Your task to perform on an android device: Clear the shopping cart on newegg.com. Image 0: 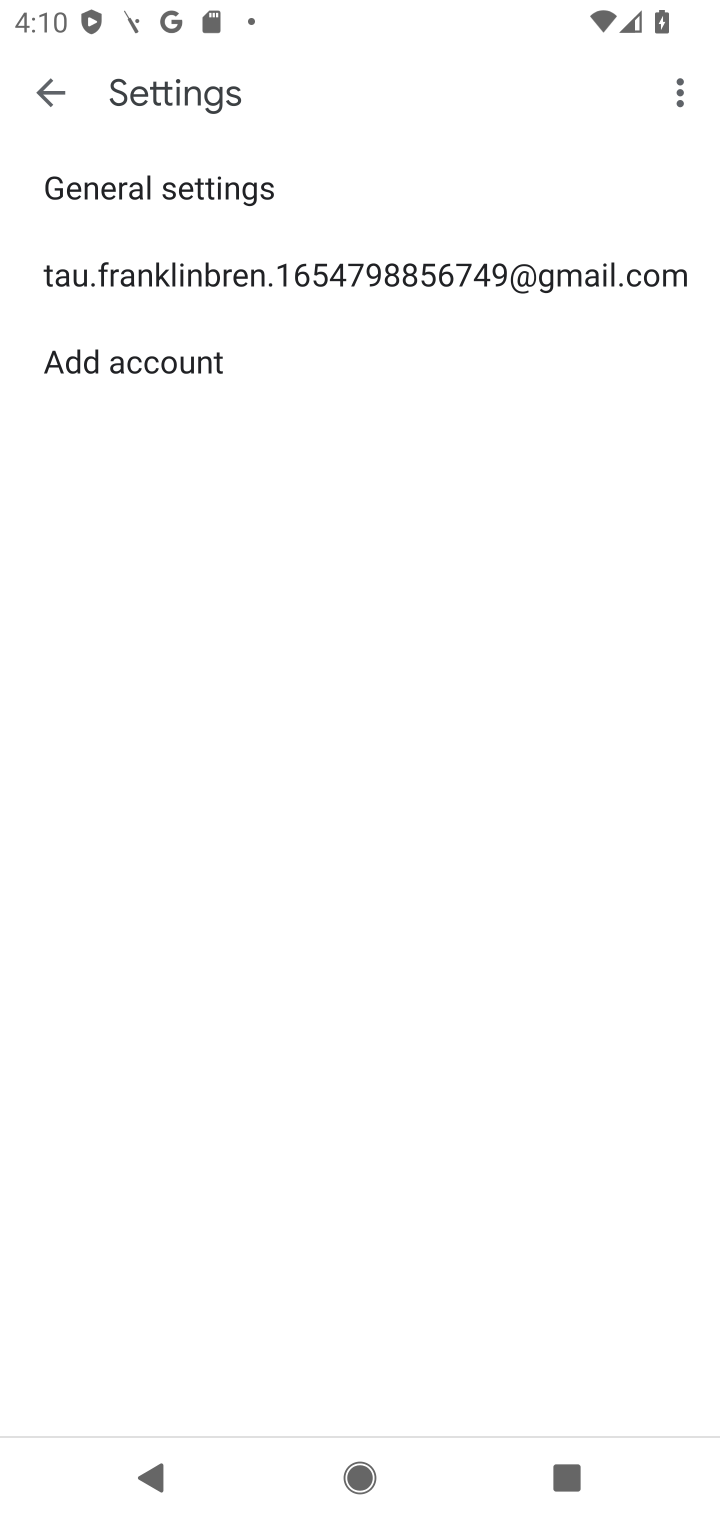
Step 0: press home button
Your task to perform on an android device: Clear the shopping cart on newegg.com. Image 1: 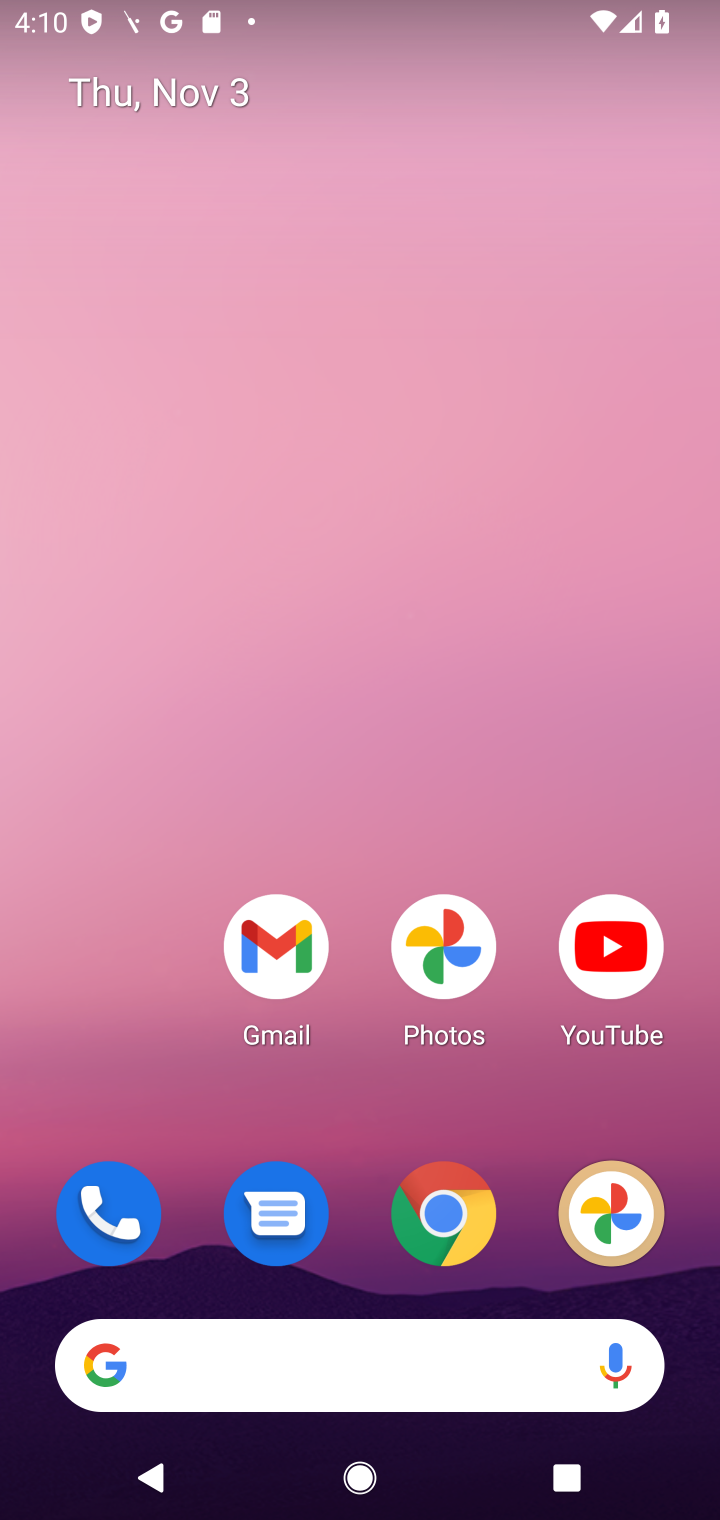
Step 1: click (453, 1212)
Your task to perform on an android device: Clear the shopping cart on newegg.com. Image 2: 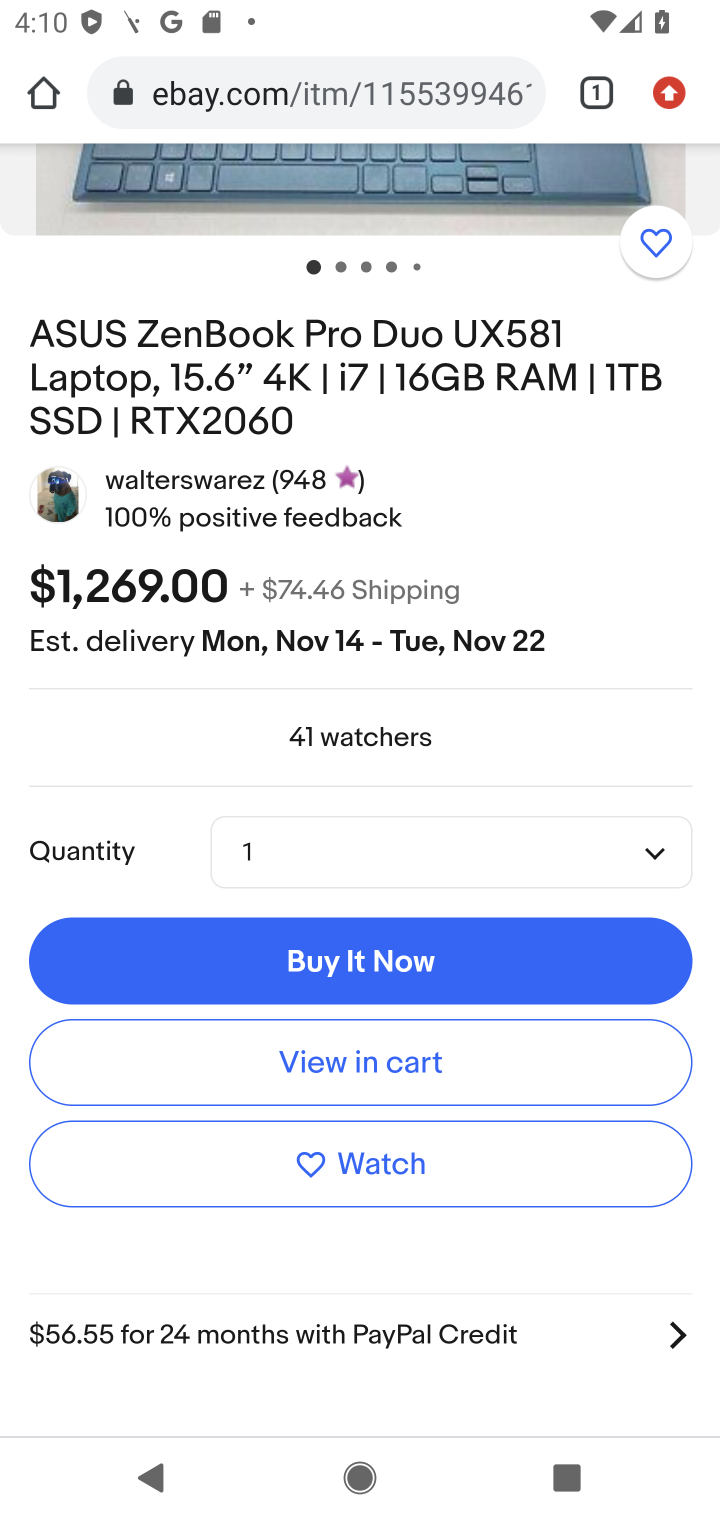
Step 2: click (315, 91)
Your task to perform on an android device: Clear the shopping cart on newegg.com. Image 3: 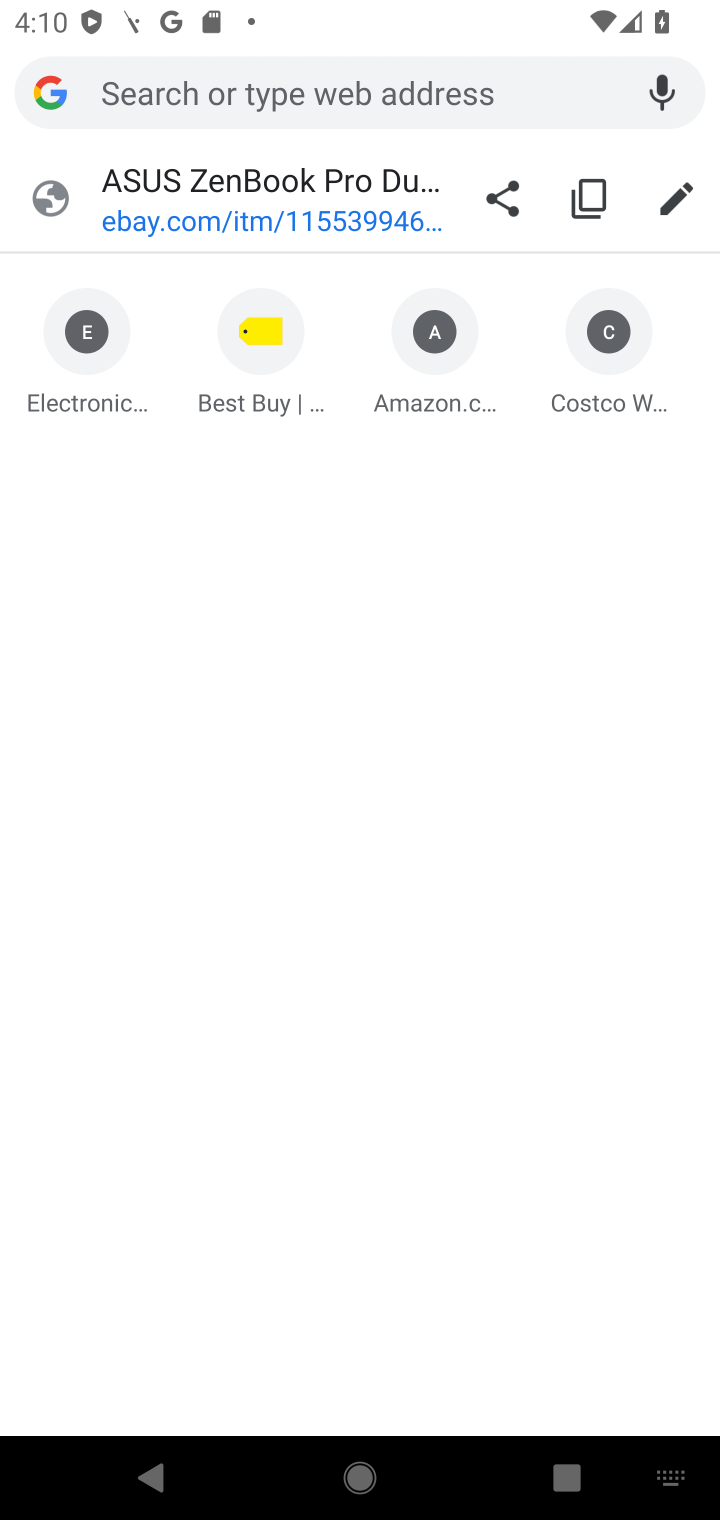
Step 3: type "newegg.com"
Your task to perform on an android device: Clear the shopping cart on newegg.com. Image 4: 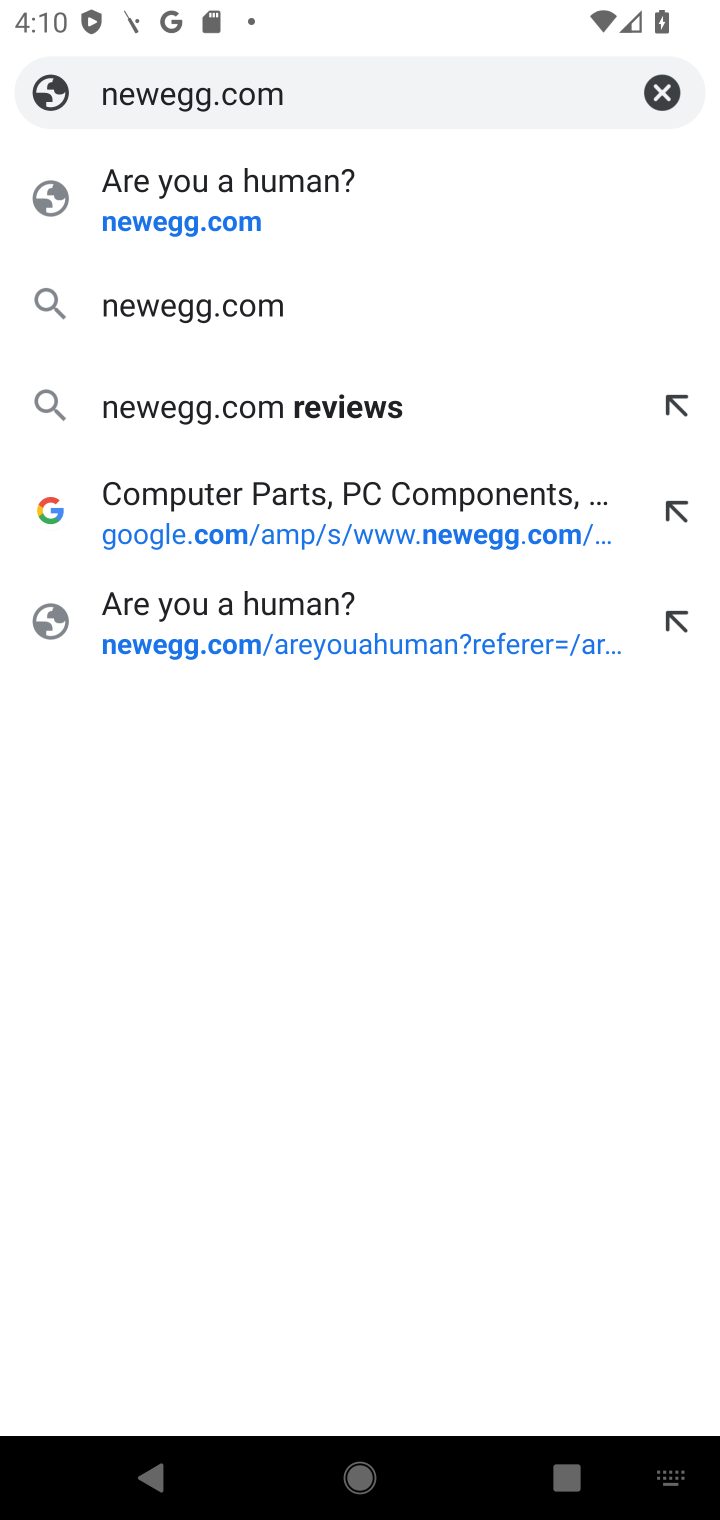
Step 4: click (227, 326)
Your task to perform on an android device: Clear the shopping cart on newegg.com. Image 5: 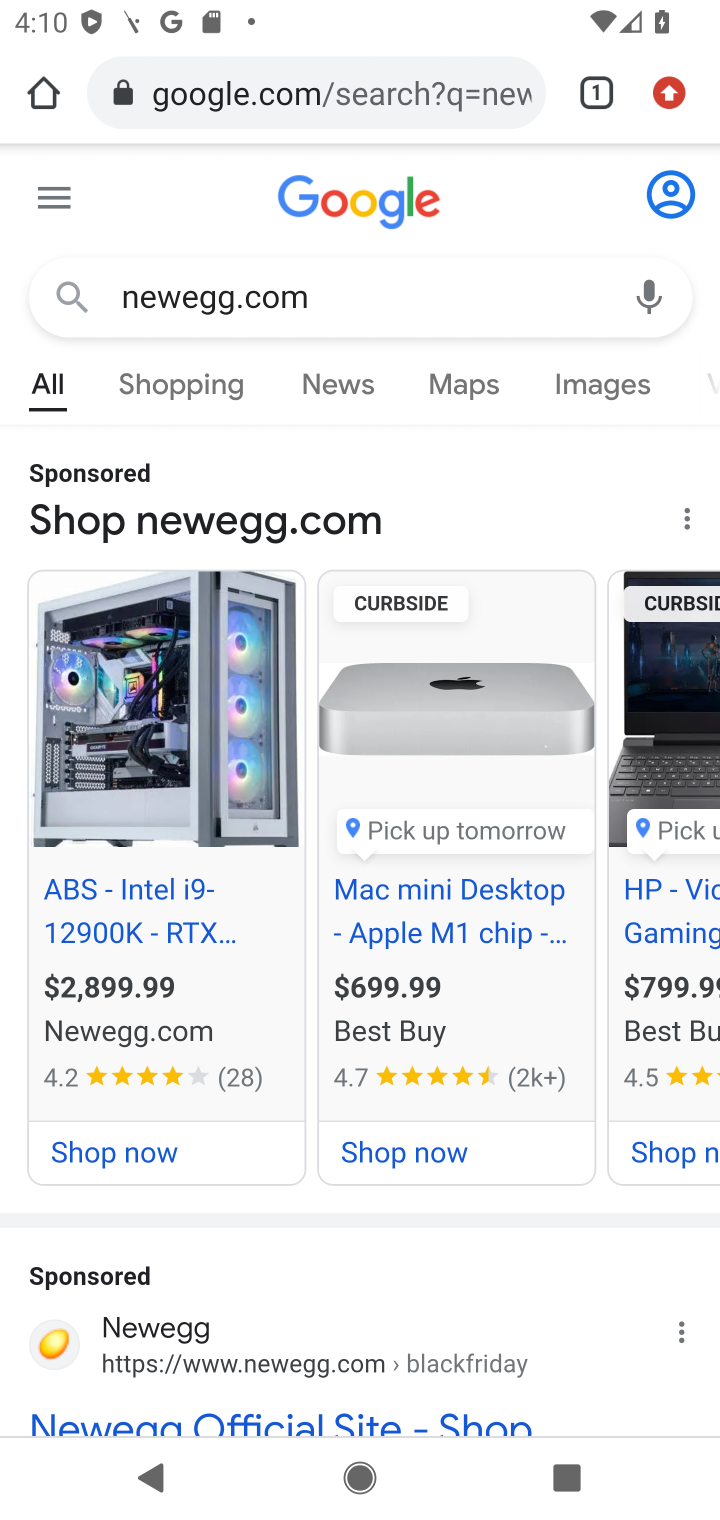
Step 5: drag from (329, 643) to (307, 245)
Your task to perform on an android device: Clear the shopping cart on newegg.com. Image 6: 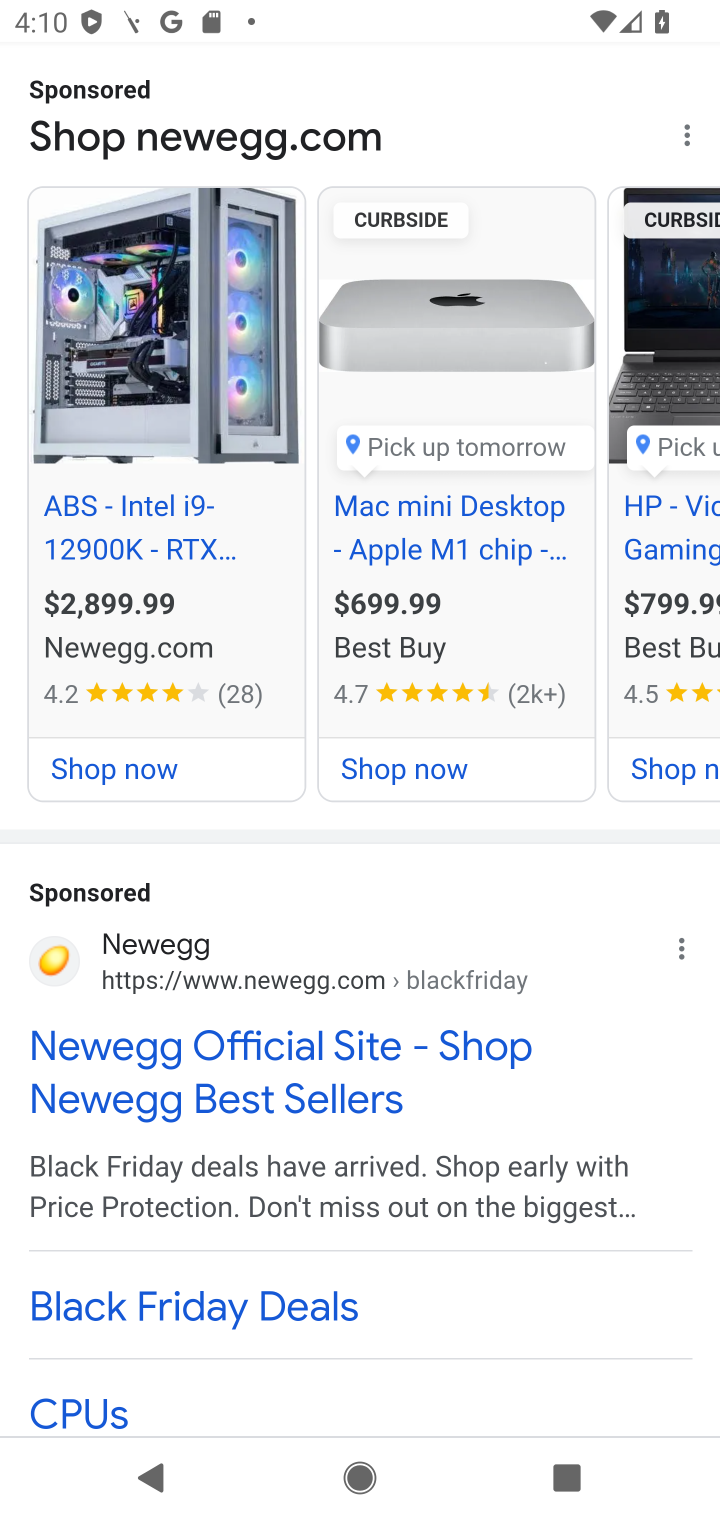
Step 6: drag from (399, 1035) to (301, 155)
Your task to perform on an android device: Clear the shopping cart on newegg.com. Image 7: 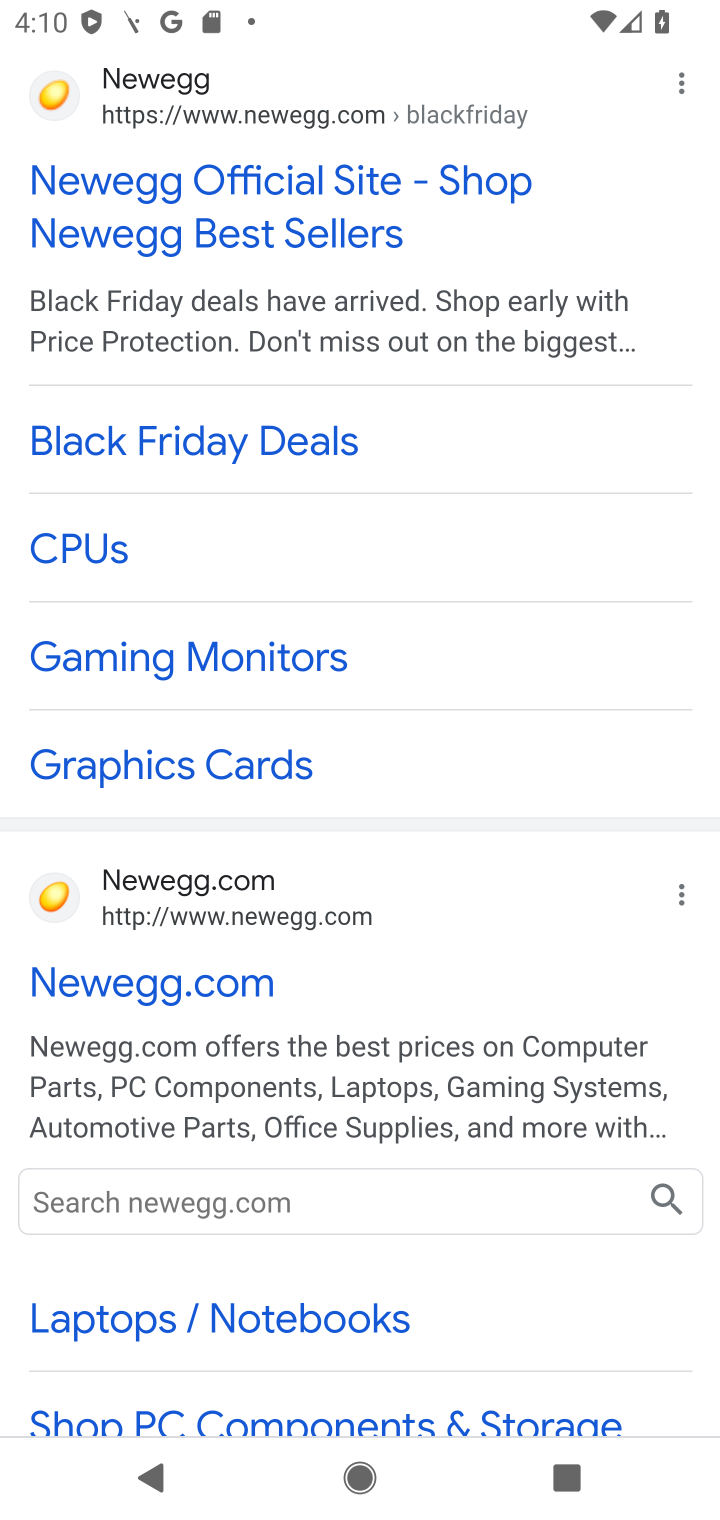
Step 7: drag from (317, 1136) to (334, 958)
Your task to perform on an android device: Clear the shopping cart on newegg.com. Image 8: 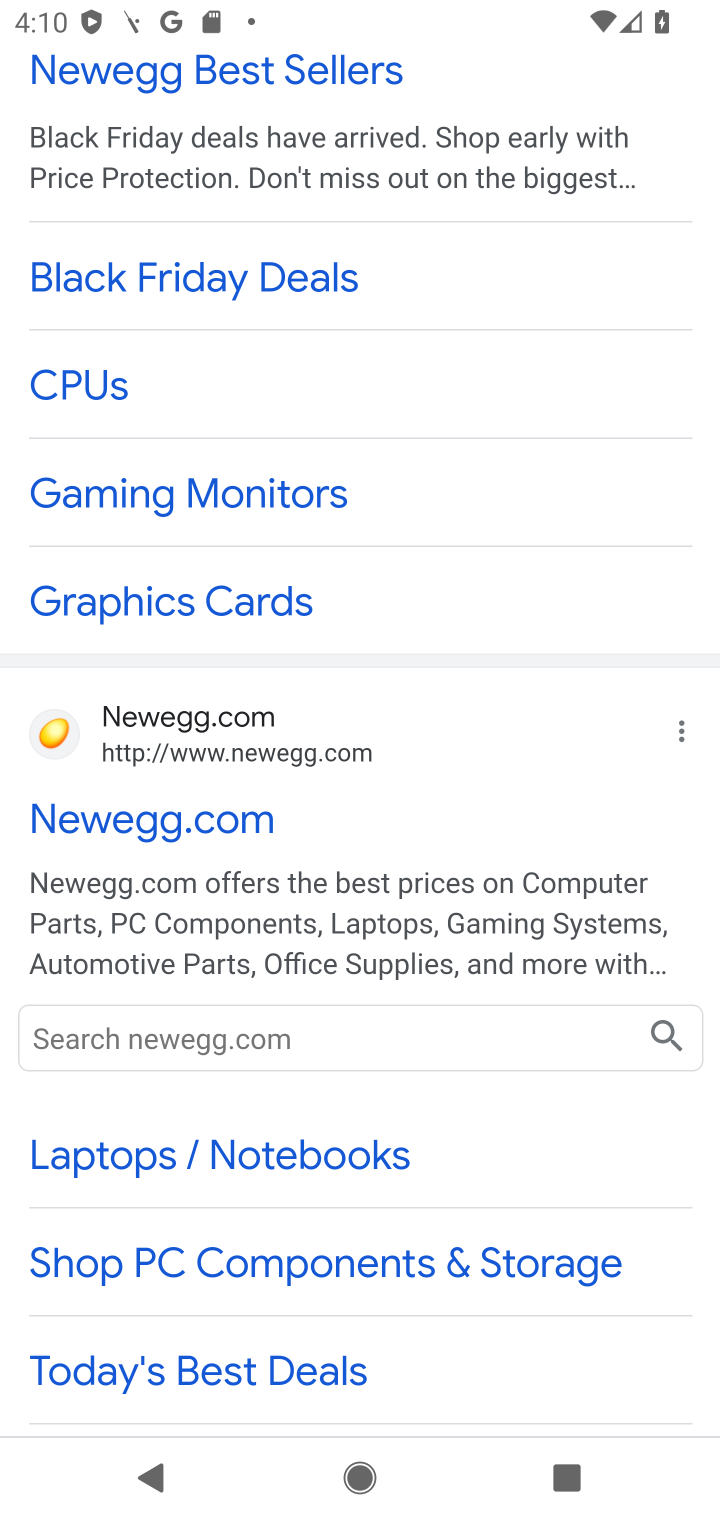
Step 8: click (117, 972)
Your task to perform on an android device: Clear the shopping cart on newegg.com. Image 9: 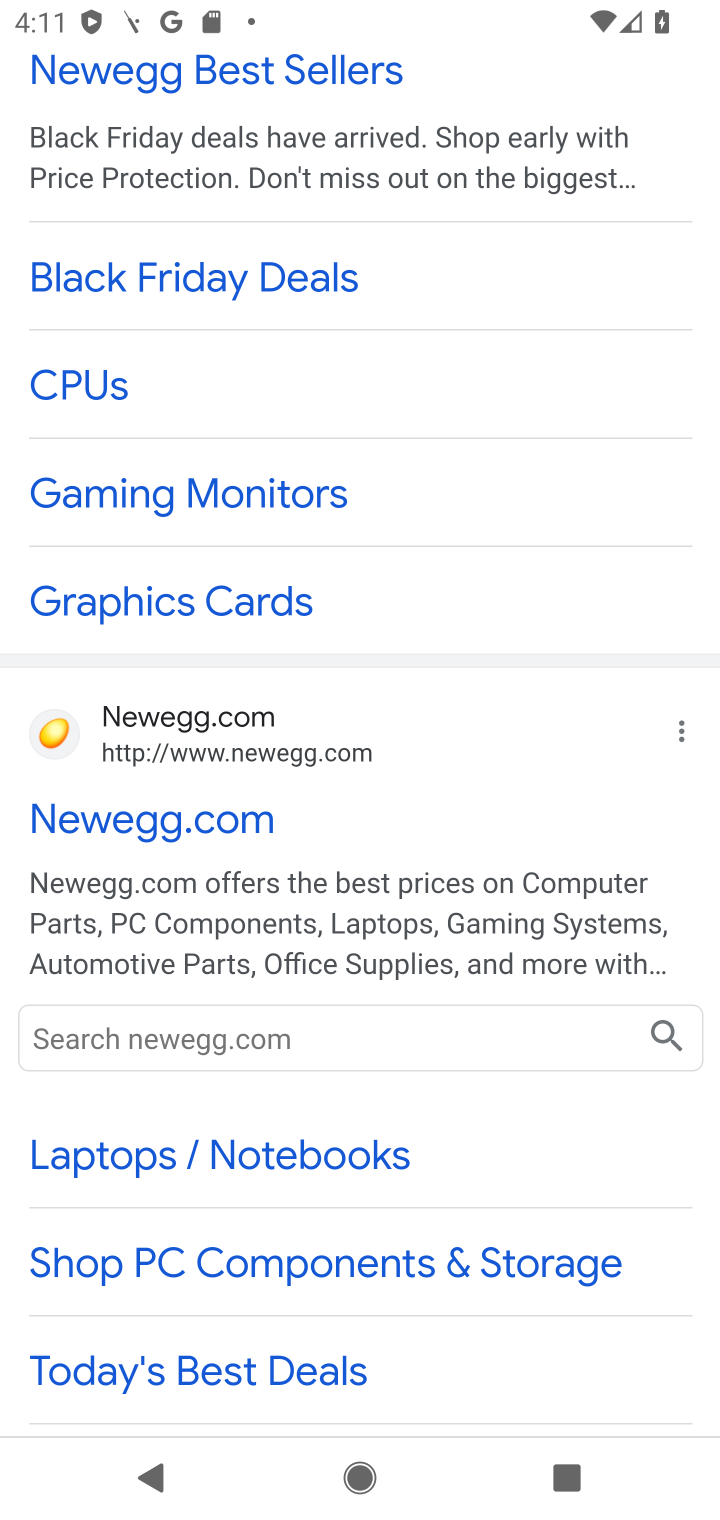
Step 9: click (151, 818)
Your task to perform on an android device: Clear the shopping cart on newegg.com. Image 10: 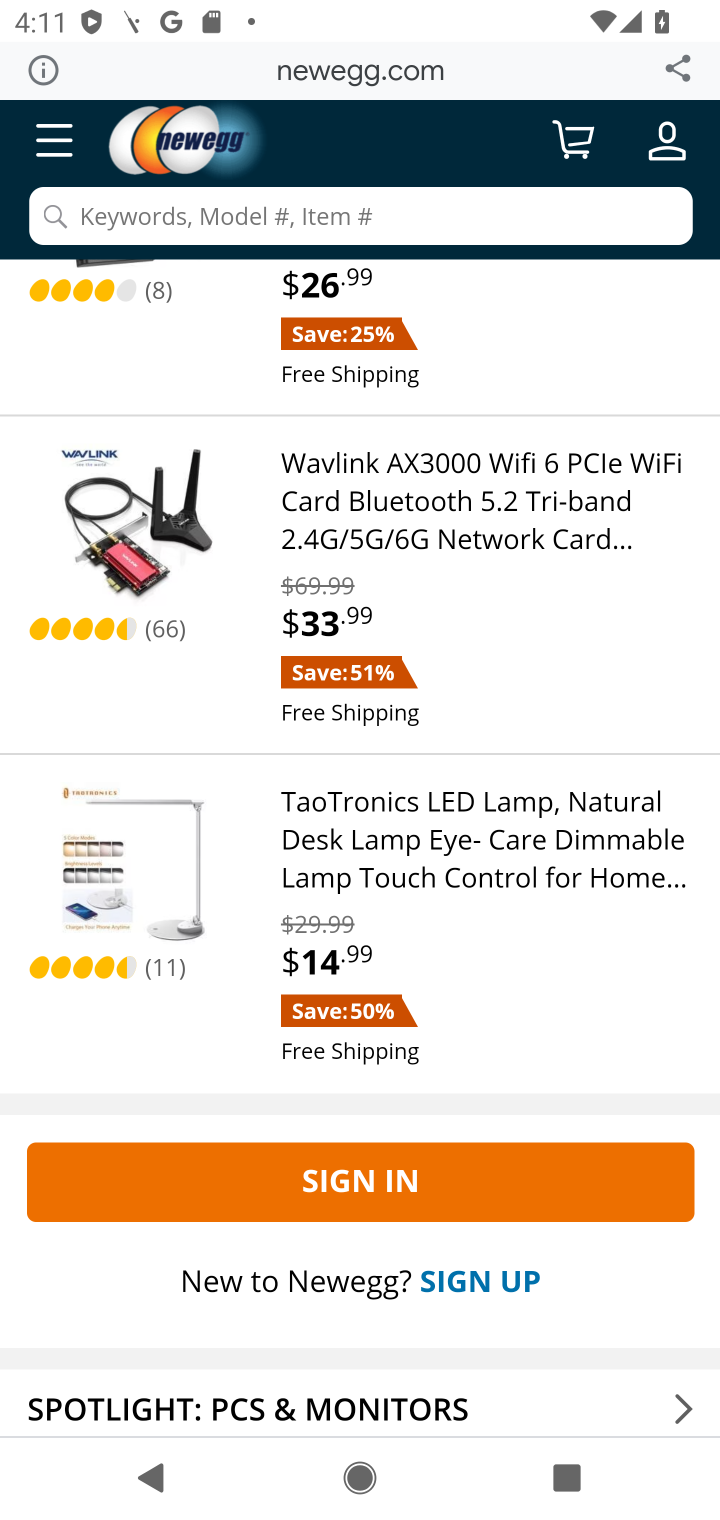
Step 10: click (591, 150)
Your task to perform on an android device: Clear the shopping cart on newegg.com. Image 11: 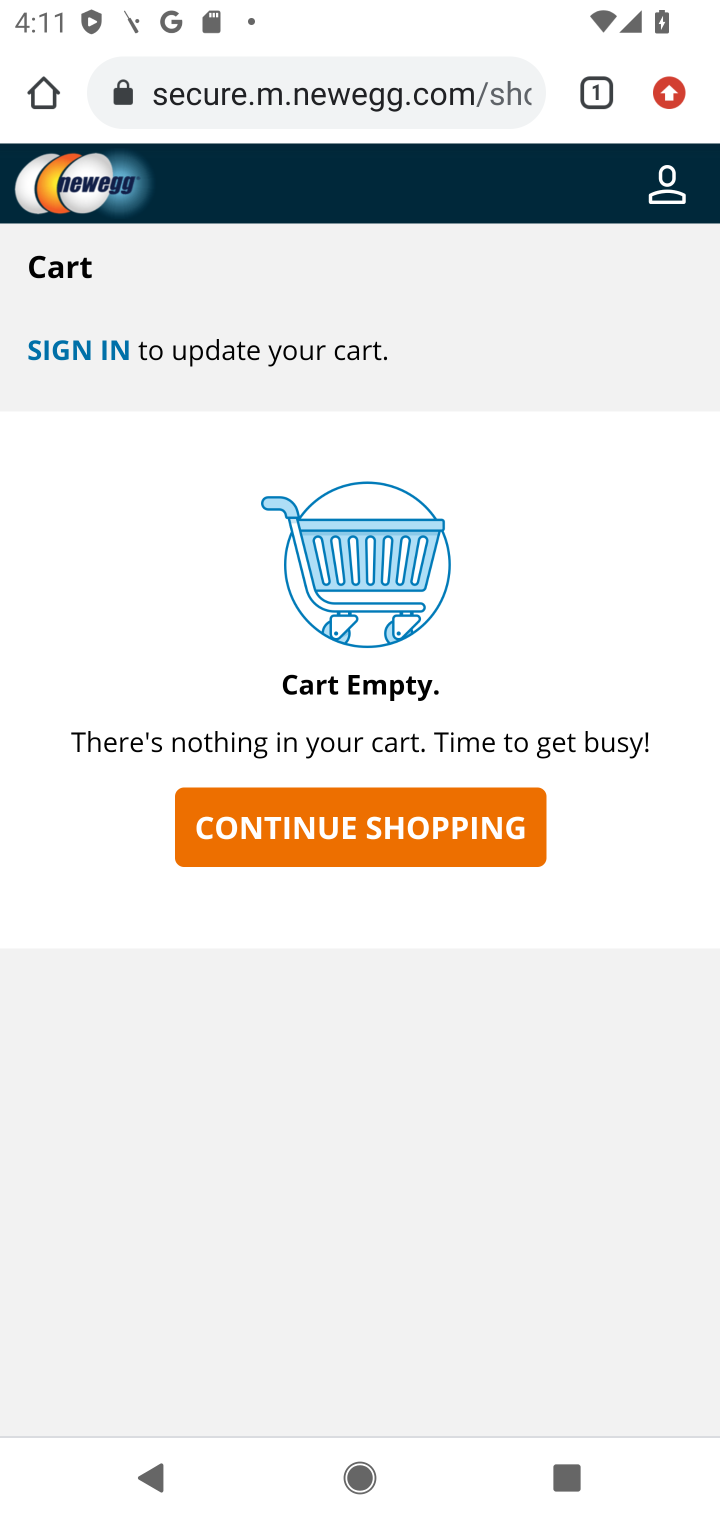
Step 11: task complete